Your task to perform on an android device: Open accessibility settings Image 0: 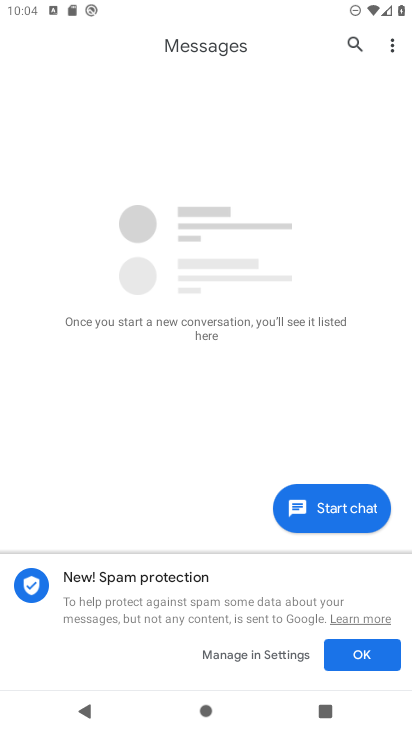
Step 0: press home button
Your task to perform on an android device: Open accessibility settings Image 1: 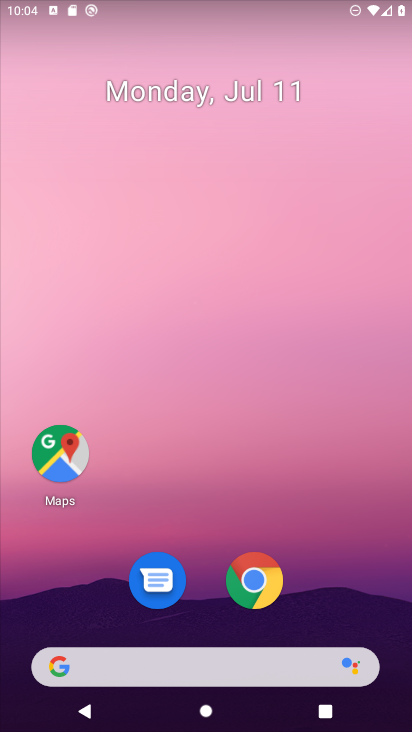
Step 1: drag from (215, 481) to (222, 21)
Your task to perform on an android device: Open accessibility settings Image 2: 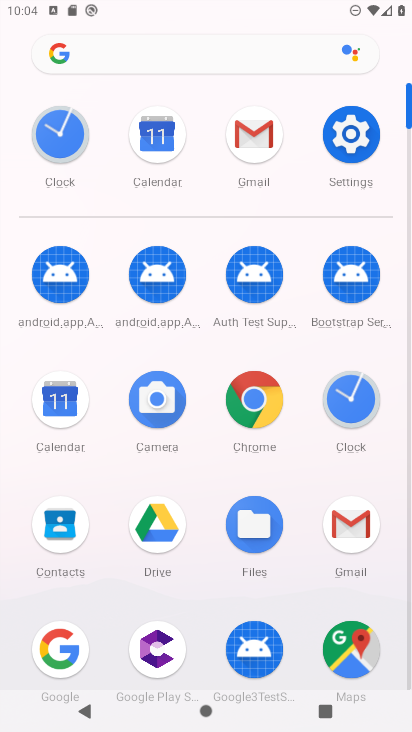
Step 2: click (341, 137)
Your task to perform on an android device: Open accessibility settings Image 3: 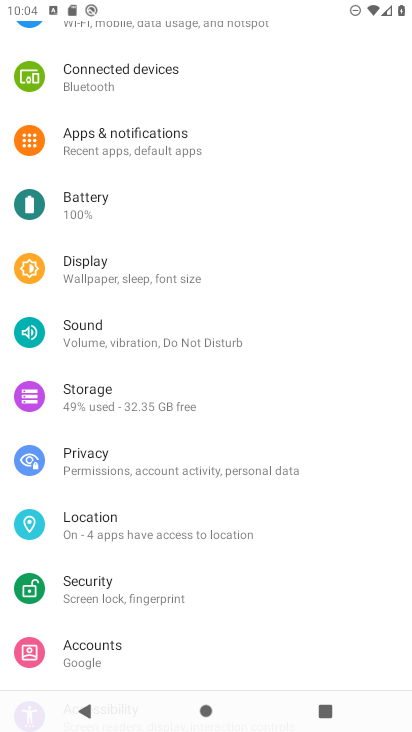
Step 3: drag from (237, 581) to (211, 225)
Your task to perform on an android device: Open accessibility settings Image 4: 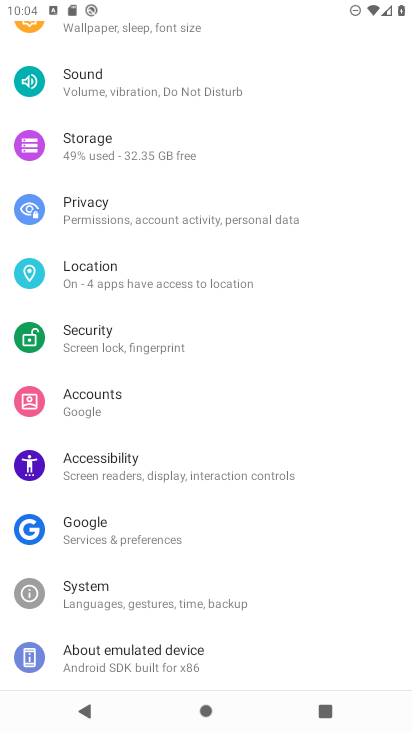
Step 4: click (200, 475)
Your task to perform on an android device: Open accessibility settings Image 5: 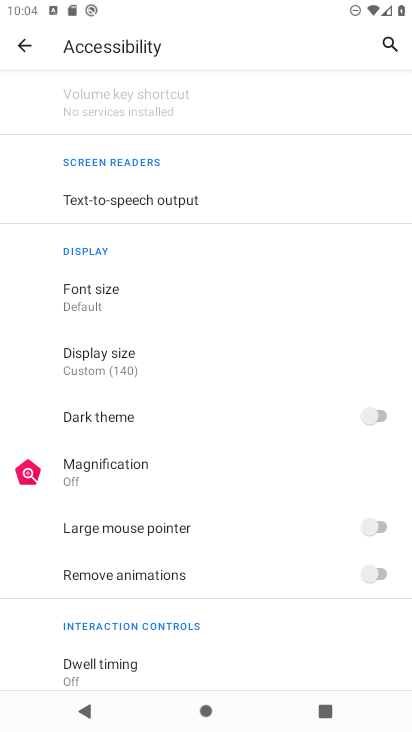
Step 5: task complete